Your task to perform on an android device: change alarm snooze length Image 0: 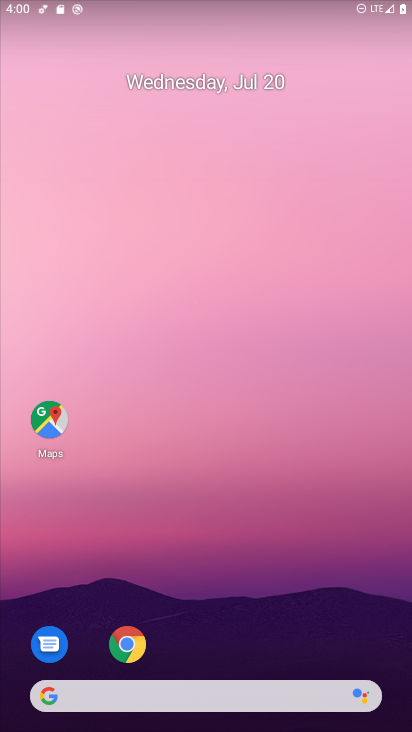
Step 0: drag from (205, 693) to (237, 153)
Your task to perform on an android device: change alarm snooze length Image 1: 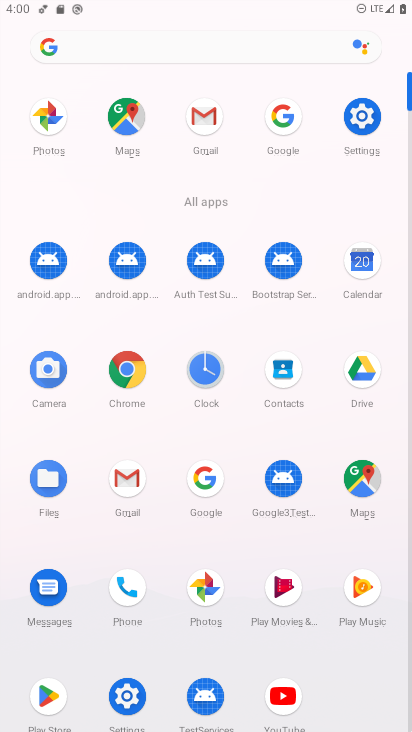
Step 1: click (204, 400)
Your task to perform on an android device: change alarm snooze length Image 2: 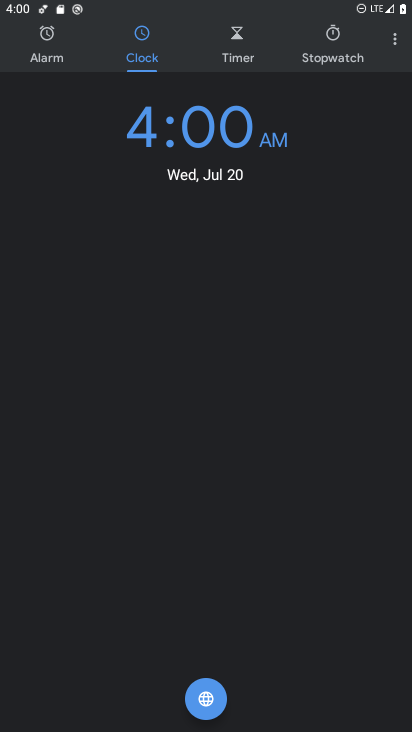
Step 2: click (399, 49)
Your task to perform on an android device: change alarm snooze length Image 3: 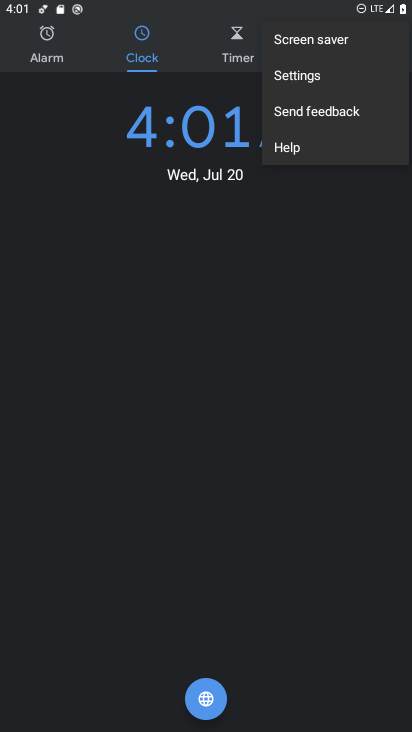
Step 3: click (327, 84)
Your task to perform on an android device: change alarm snooze length Image 4: 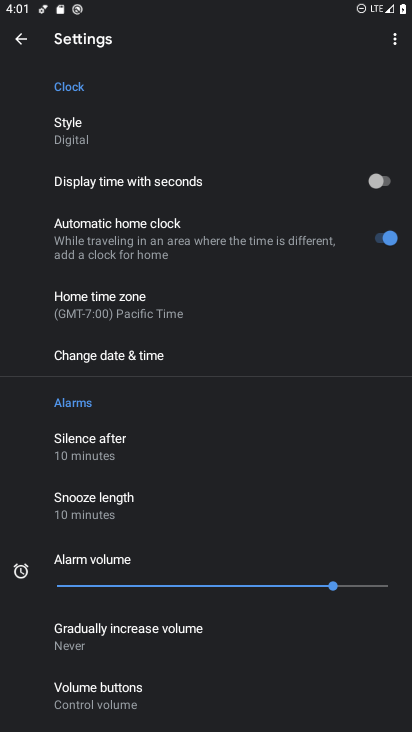
Step 4: click (121, 511)
Your task to perform on an android device: change alarm snooze length Image 5: 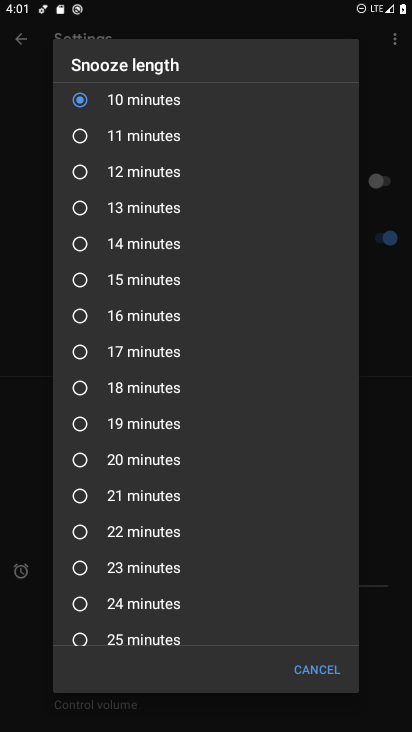
Step 5: click (86, 169)
Your task to perform on an android device: change alarm snooze length Image 6: 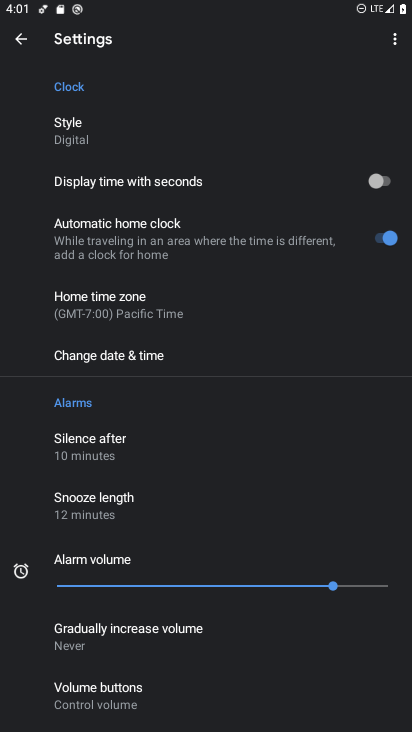
Step 6: task complete